Your task to perform on an android device: Play the last video I watched on Youtube Image 0: 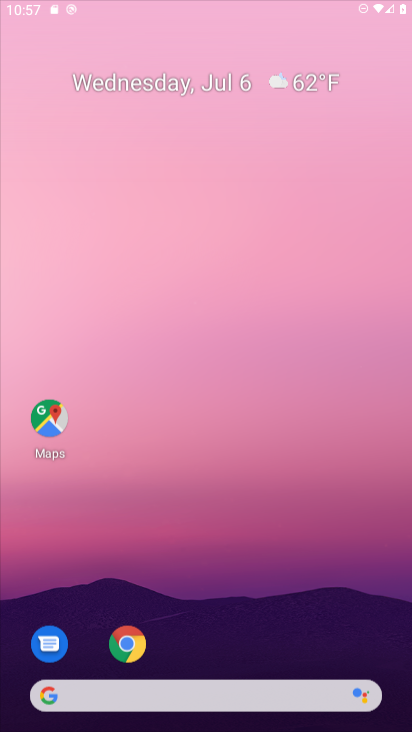
Step 0: press home button
Your task to perform on an android device: Play the last video I watched on Youtube Image 1: 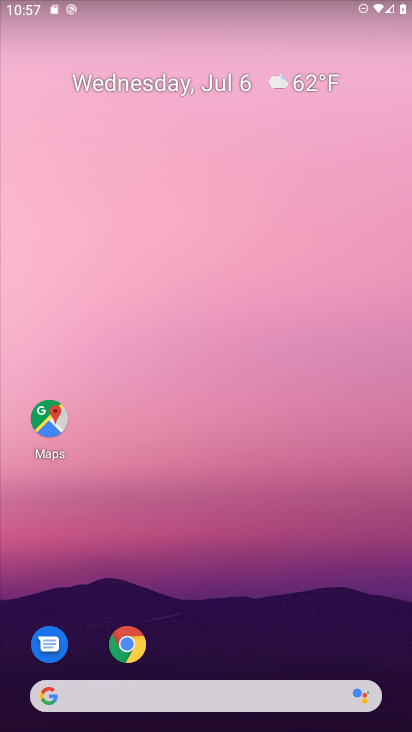
Step 1: drag from (229, 645) to (144, 3)
Your task to perform on an android device: Play the last video I watched on Youtube Image 2: 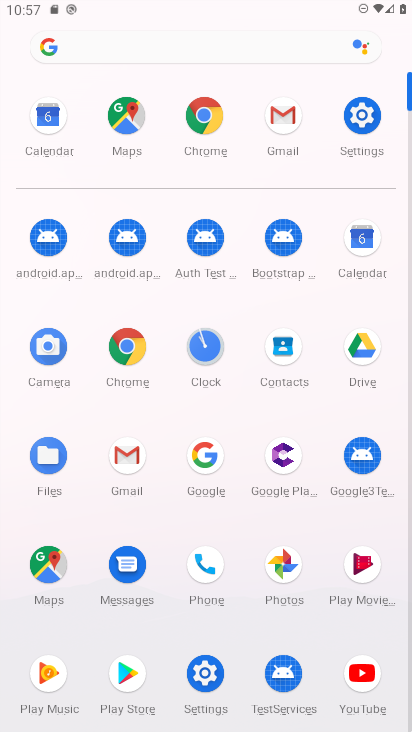
Step 2: click (363, 672)
Your task to perform on an android device: Play the last video I watched on Youtube Image 3: 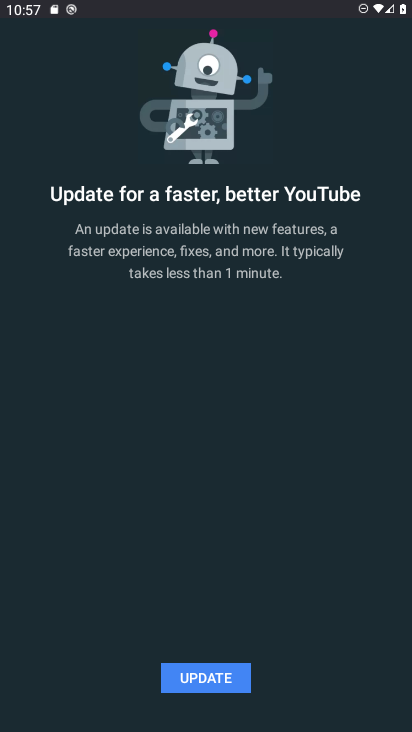
Step 3: click (189, 691)
Your task to perform on an android device: Play the last video I watched on Youtube Image 4: 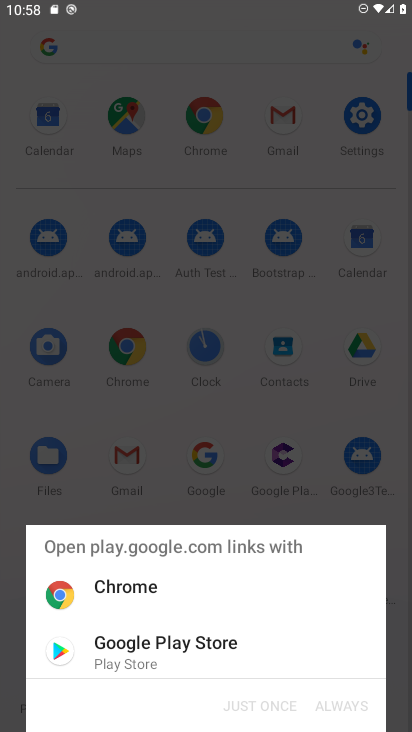
Step 4: click (132, 655)
Your task to perform on an android device: Play the last video I watched on Youtube Image 5: 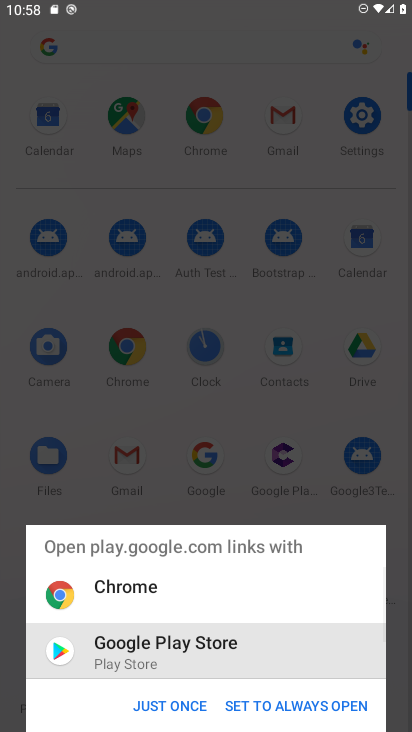
Step 5: click (172, 709)
Your task to perform on an android device: Play the last video I watched on Youtube Image 6: 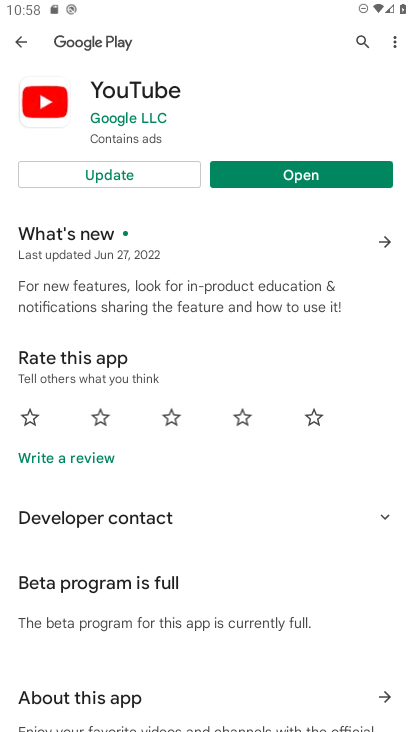
Step 6: click (178, 176)
Your task to perform on an android device: Play the last video I watched on Youtube Image 7: 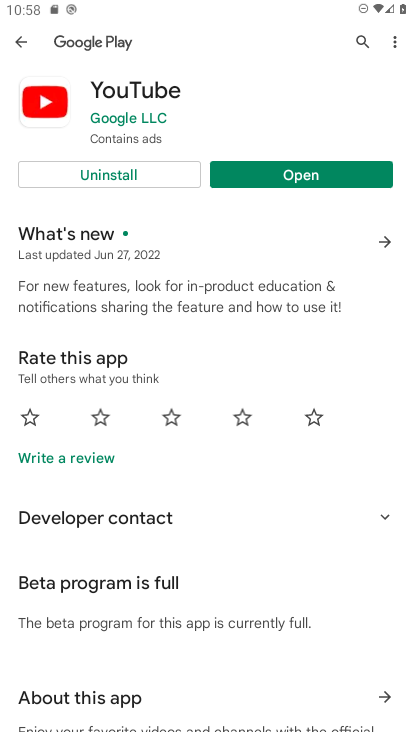
Step 7: click (336, 173)
Your task to perform on an android device: Play the last video I watched on Youtube Image 8: 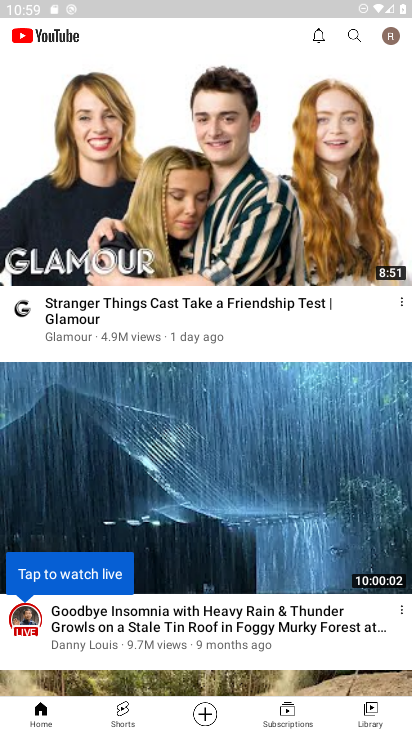
Step 8: click (367, 718)
Your task to perform on an android device: Play the last video I watched on Youtube Image 9: 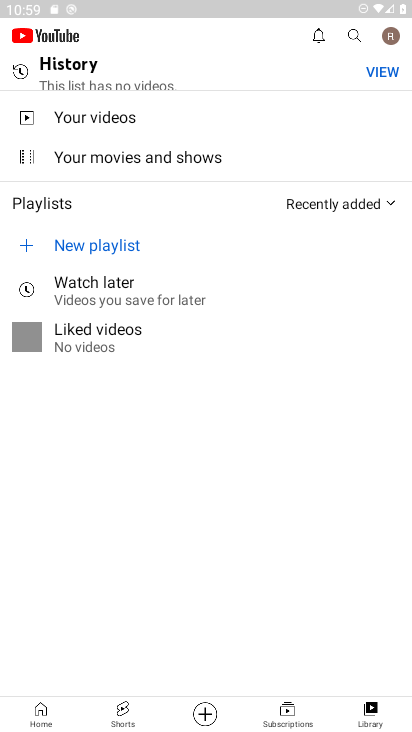
Step 9: task complete